Your task to perform on an android device: refresh tabs in the chrome app Image 0: 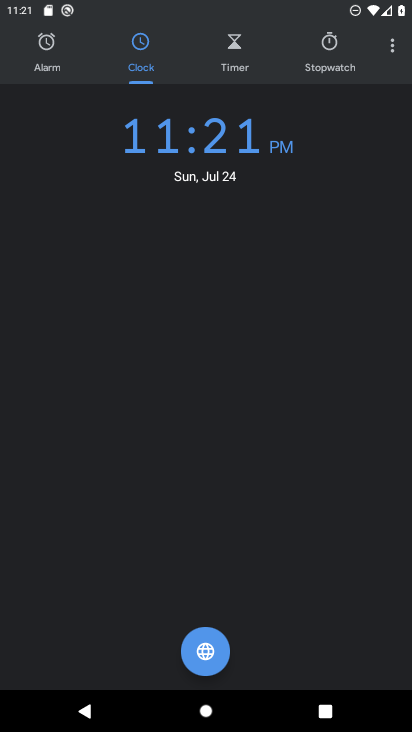
Step 0: press home button
Your task to perform on an android device: refresh tabs in the chrome app Image 1: 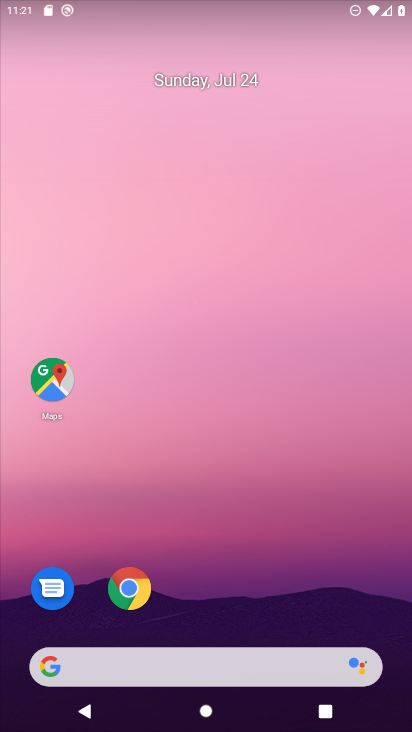
Step 1: click (131, 592)
Your task to perform on an android device: refresh tabs in the chrome app Image 2: 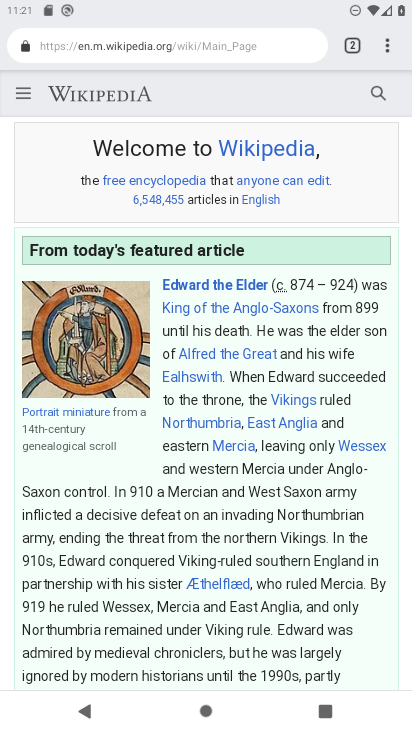
Step 2: click (394, 45)
Your task to perform on an android device: refresh tabs in the chrome app Image 3: 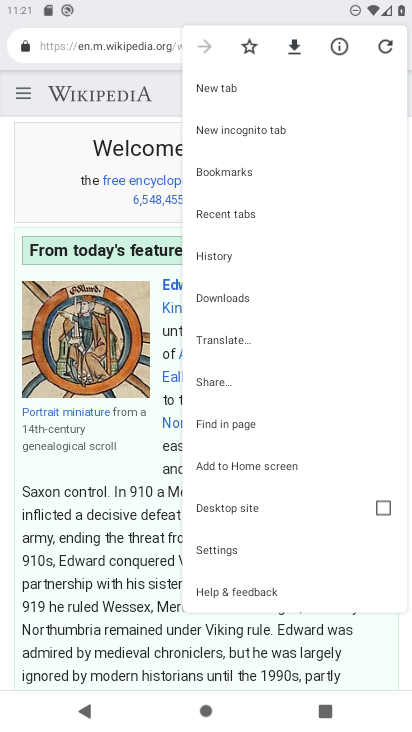
Step 3: click (394, 45)
Your task to perform on an android device: refresh tabs in the chrome app Image 4: 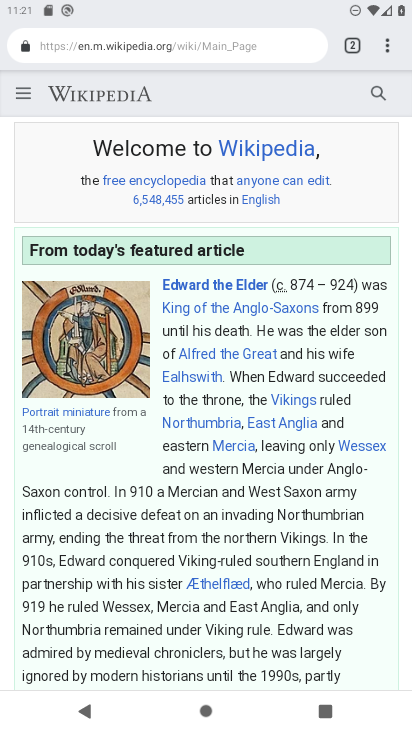
Step 4: task complete